Your task to perform on an android device: Go to CNN.com Image 0: 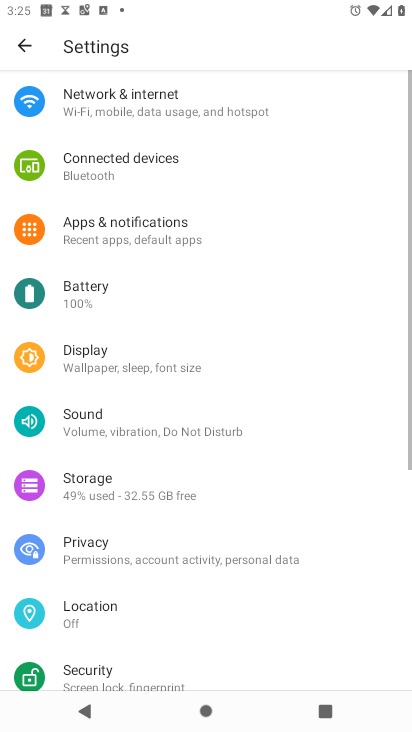
Step 0: click (268, 579)
Your task to perform on an android device: Go to CNN.com Image 1: 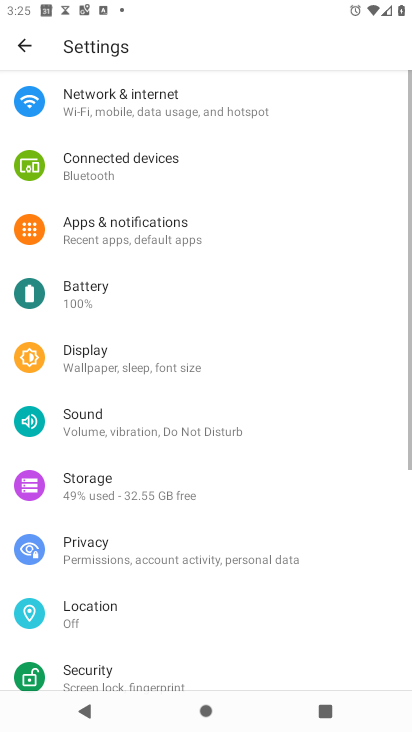
Step 1: press home button
Your task to perform on an android device: Go to CNN.com Image 2: 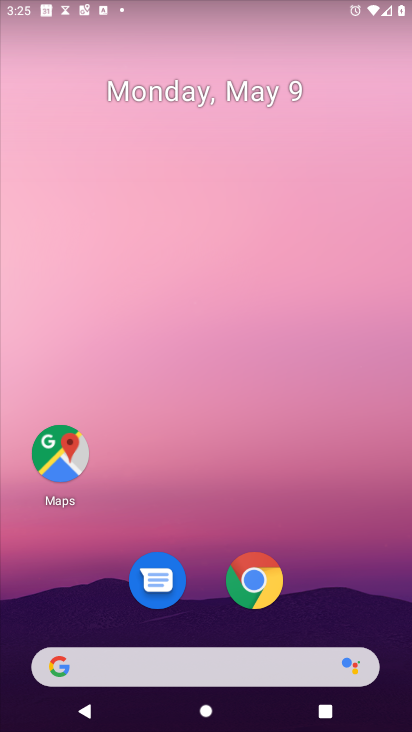
Step 2: click (274, 585)
Your task to perform on an android device: Go to CNN.com Image 3: 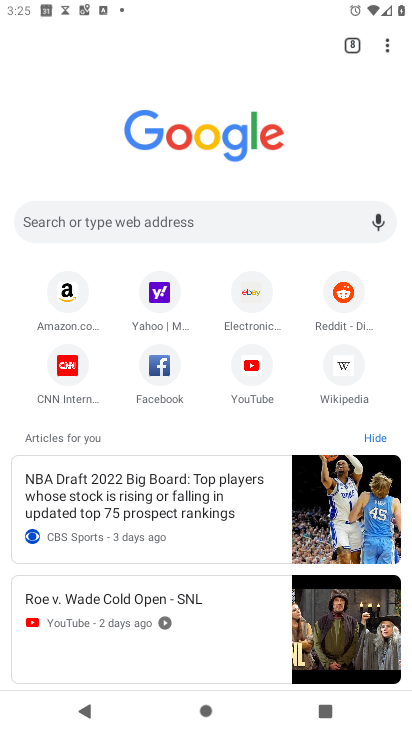
Step 3: click (61, 381)
Your task to perform on an android device: Go to CNN.com Image 4: 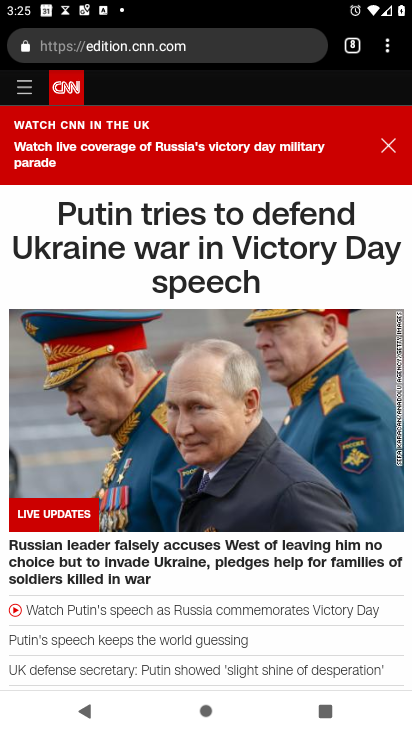
Step 4: task complete